Your task to perform on an android device: check the backup settings in the google photos Image 0: 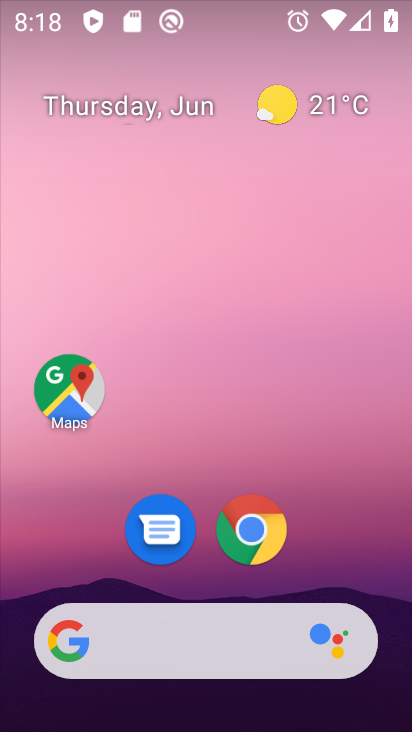
Step 0: drag from (403, 681) to (411, 173)
Your task to perform on an android device: check the backup settings in the google photos Image 1: 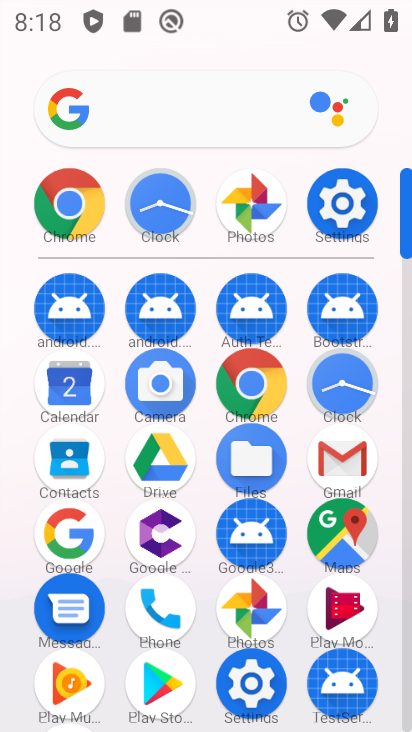
Step 1: click (238, 599)
Your task to perform on an android device: check the backup settings in the google photos Image 2: 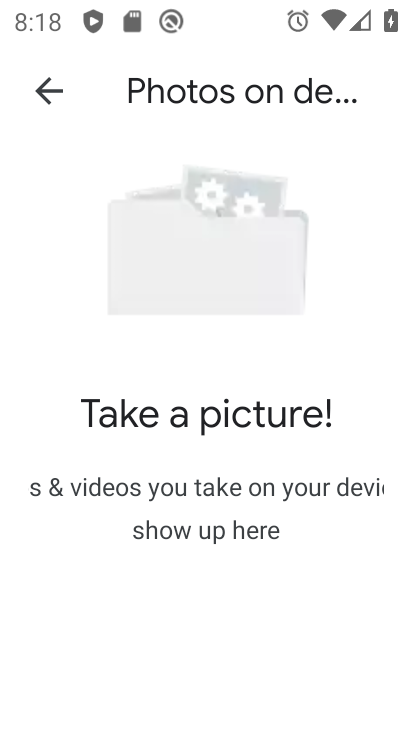
Step 2: click (42, 92)
Your task to perform on an android device: check the backup settings in the google photos Image 3: 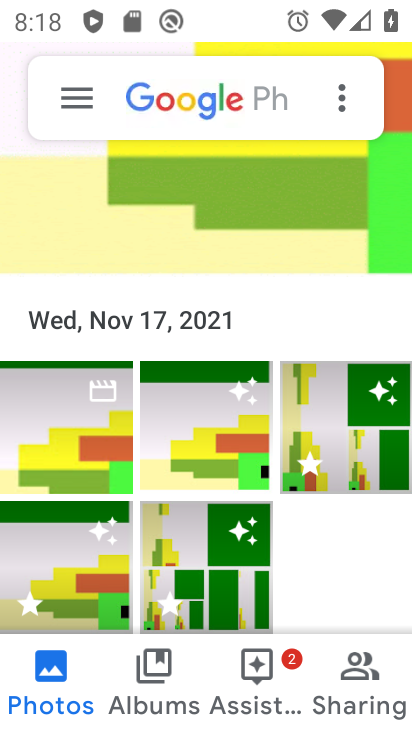
Step 3: click (82, 94)
Your task to perform on an android device: check the backup settings in the google photos Image 4: 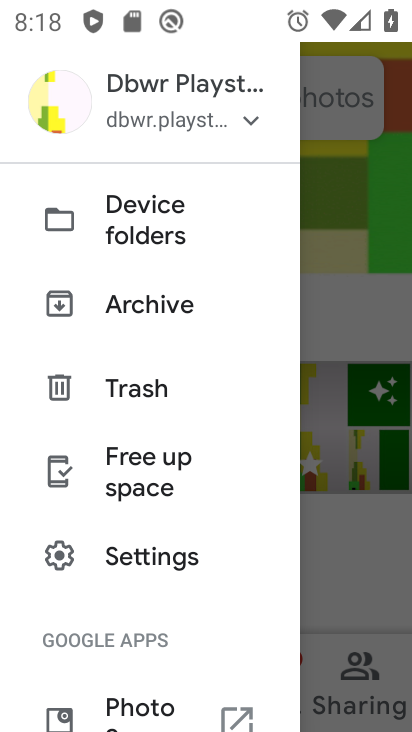
Step 4: click (137, 566)
Your task to perform on an android device: check the backup settings in the google photos Image 5: 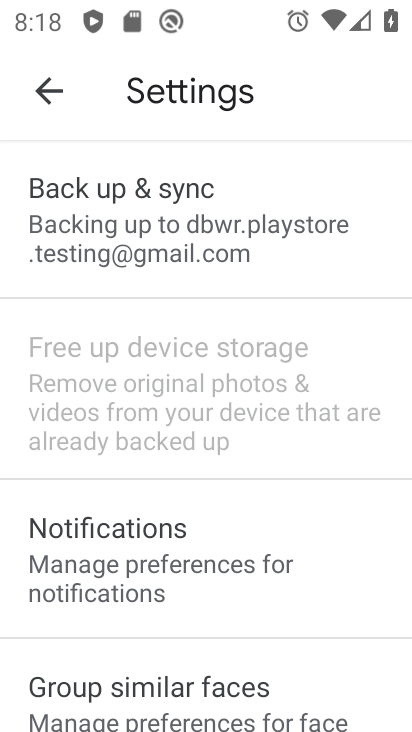
Step 5: click (128, 194)
Your task to perform on an android device: check the backup settings in the google photos Image 6: 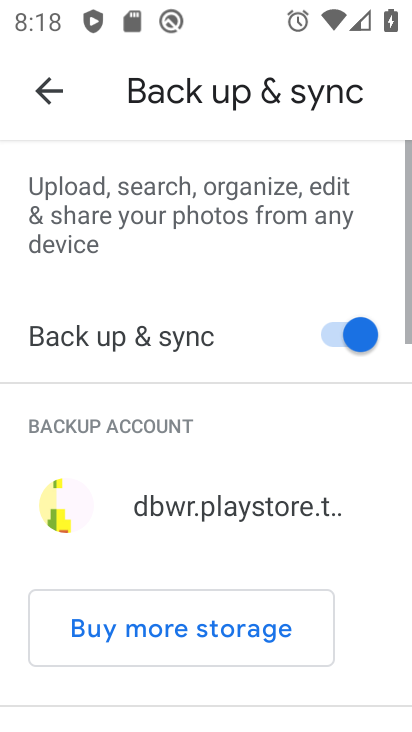
Step 6: task complete